Your task to perform on an android device: uninstall "TextNow: Call + Text Unlimited" Image 0: 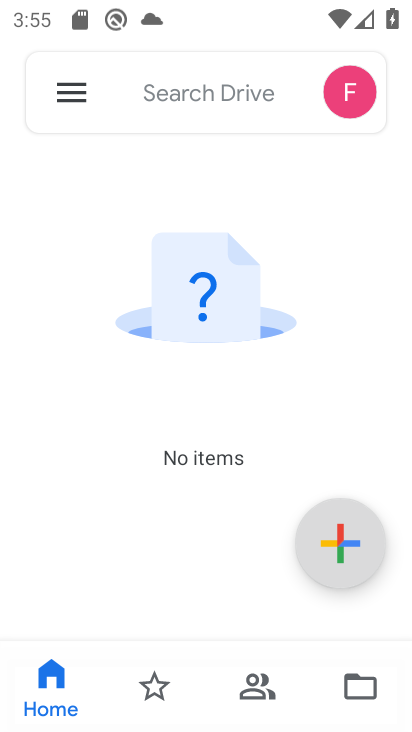
Step 0: press home button
Your task to perform on an android device: uninstall "TextNow: Call + Text Unlimited" Image 1: 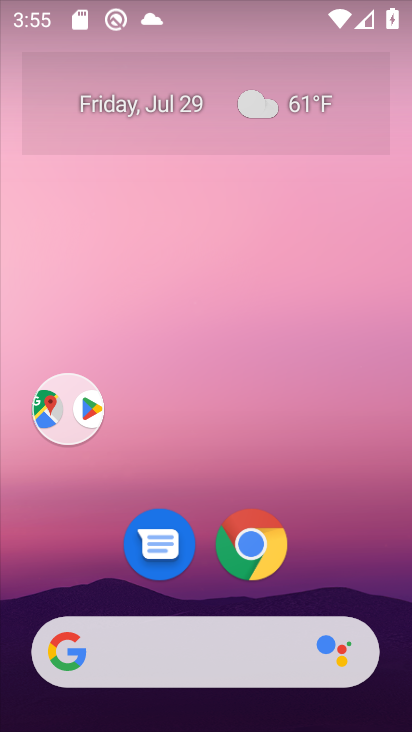
Step 1: task complete